Your task to perform on an android device: Open calendar and show me the second week of next month Image 0: 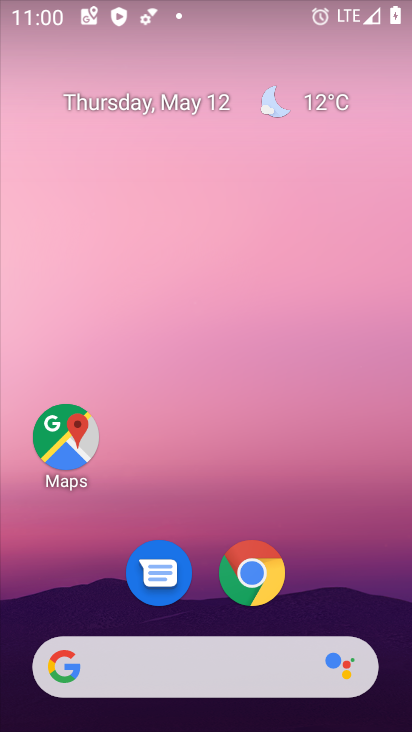
Step 0: drag from (196, 711) to (237, 121)
Your task to perform on an android device: Open calendar and show me the second week of next month Image 1: 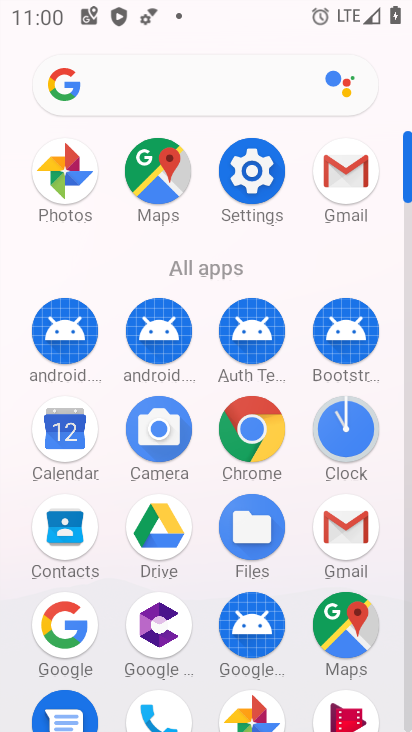
Step 1: click (52, 190)
Your task to perform on an android device: Open calendar and show me the second week of next month Image 2: 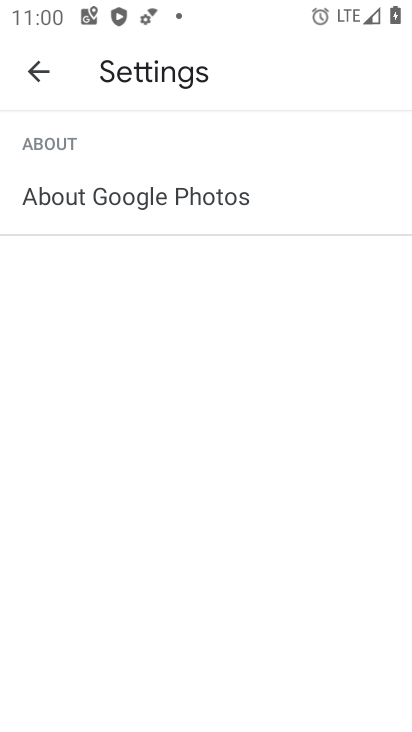
Step 2: click (43, 67)
Your task to perform on an android device: Open calendar and show me the second week of next month Image 3: 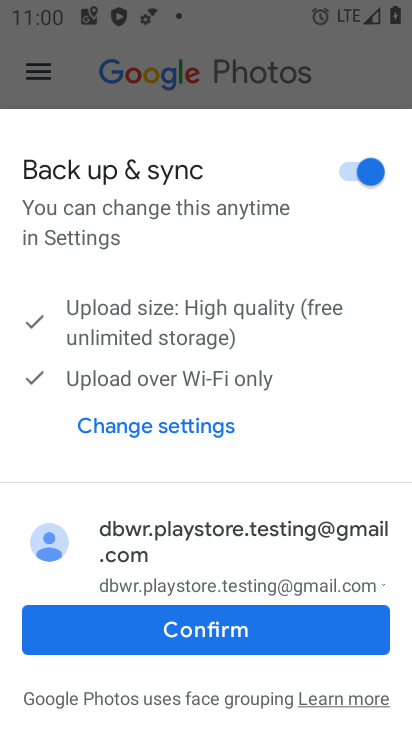
Step 3: press home button
Your task to perform on an android device: Open calendar and show me the second week of next month Image 4: 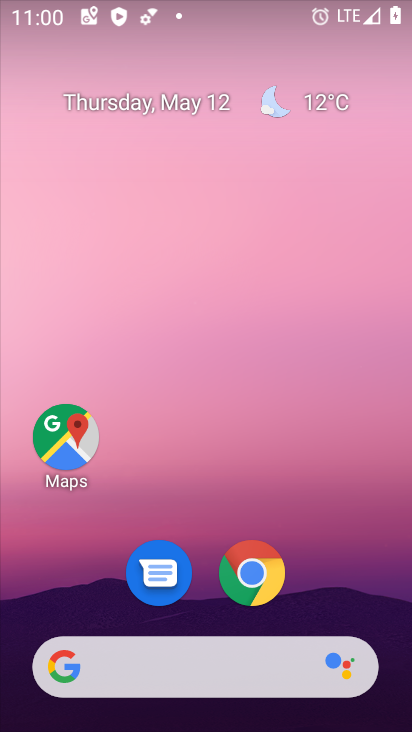
Step 4: drag from (218, 639) to (198, 163)
Your task to perform on an android device: Open calendar and show me the second week of next month Image 5: 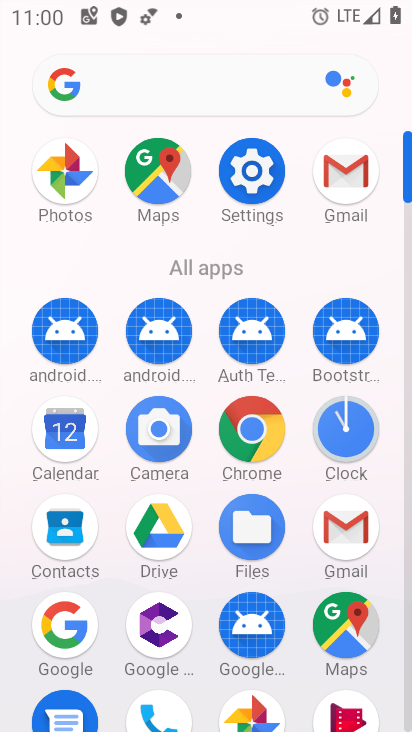
Step 5: click (79, 431)
Your task to perform on an android device: Open calendar and show me the second week of next month Image 6: 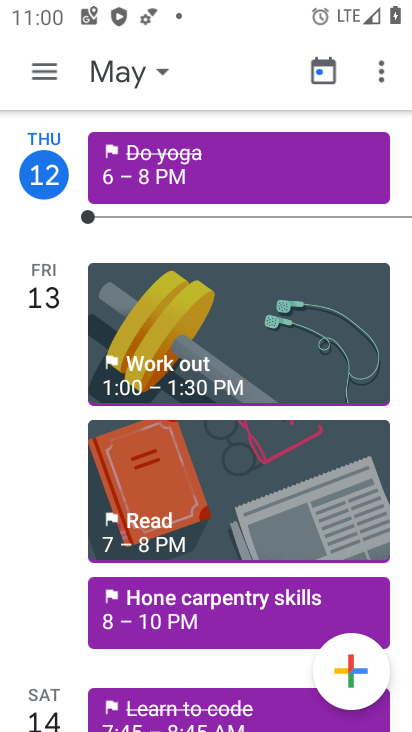
Step 6: click (127, 73)
Your task to perform on an android device: Open calendar and show me the second week of next month Image 7: 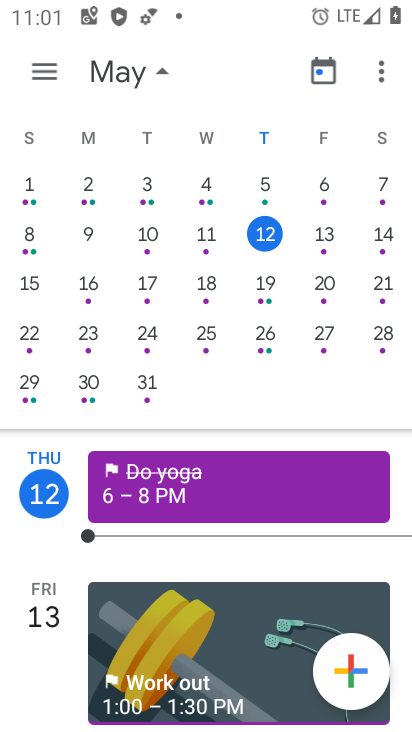
Step 7: drag from (358, 227) to (13, 305)
Your task to perform on an android device: Open calendar and show me the second week of next month Image 8: 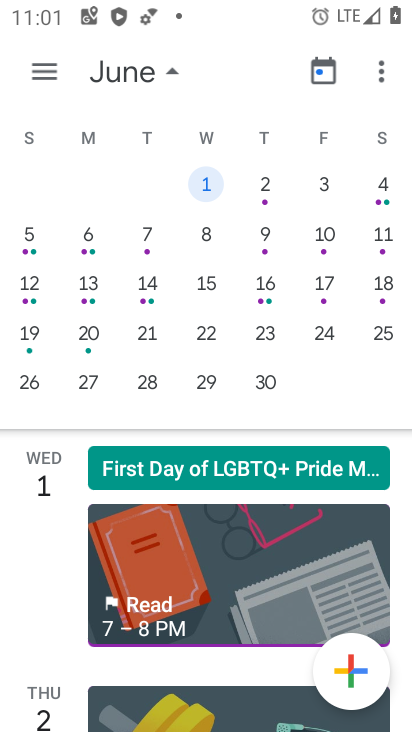
Step 8: click (43, 236)
Your task to perform on an android device: Open calendar and show me the second week of next month Image 9: 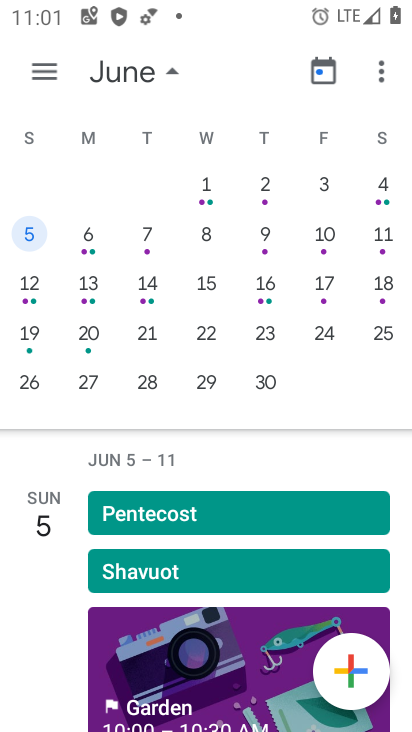
Step 9: task complete